Your task to perform on an android device: turn off translation in the chrome app Image 0: 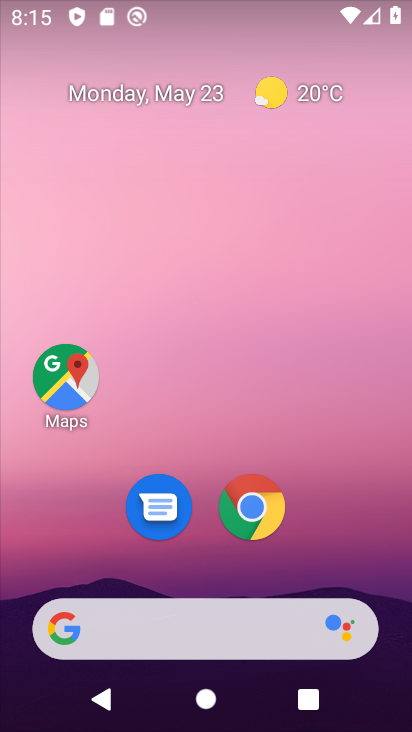
Step 0: click (262, 515)
Your task to perform on an android device: turn off translation in the chrome app Image 1: 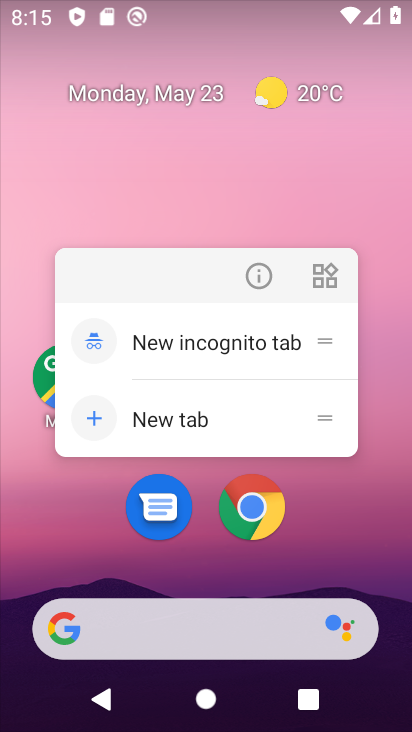
Step 1: click (265, 504)
Your task to perform on an android device: turn off translation in the chrome app Image 2: 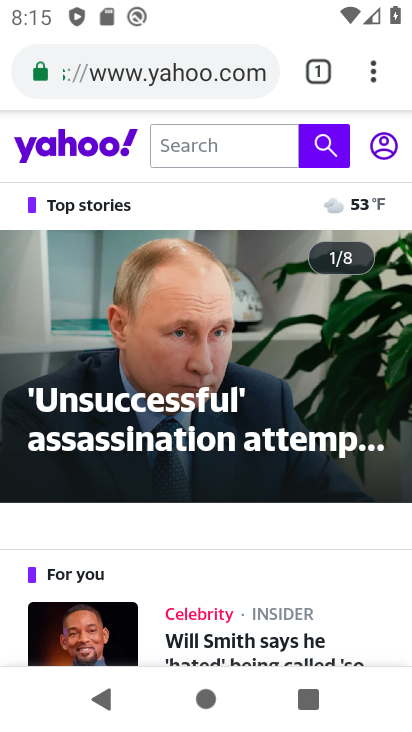
Step 2: click (375, 75)
Your task to perform on an android device: turn off translation in the chrome app Image 3: 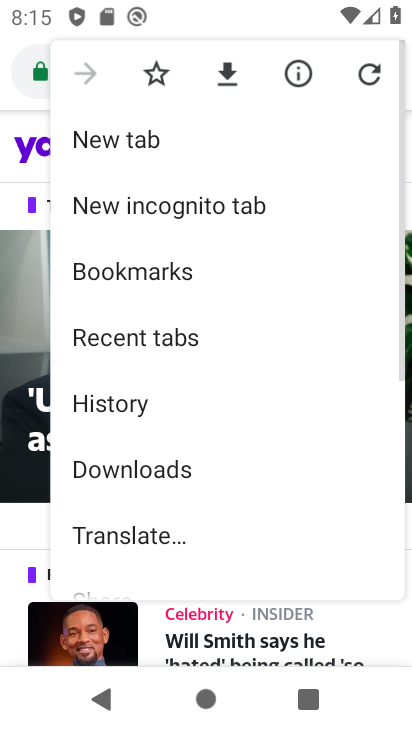
Step 3: drag from (235, 489) to (235, 134)
Your task to perform on an android device: turn off translation in the chrome app Image 4: 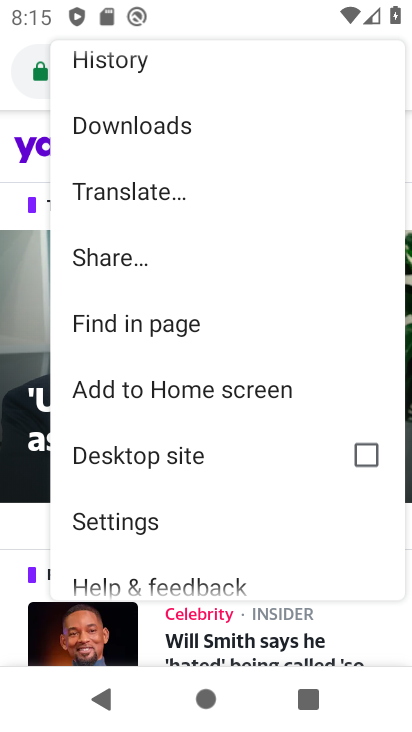
Step 4: drag from (207, 491) to (187, 233)
Your task to perform on an android device: turn off translation in the chrome app Image 5: 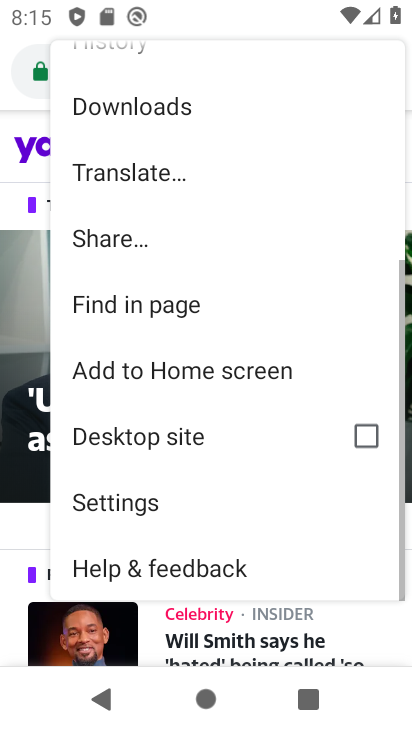
Step 5: click (123, 514)
Your task to perform on an android device: turn off translation in the chrome app Image 6: 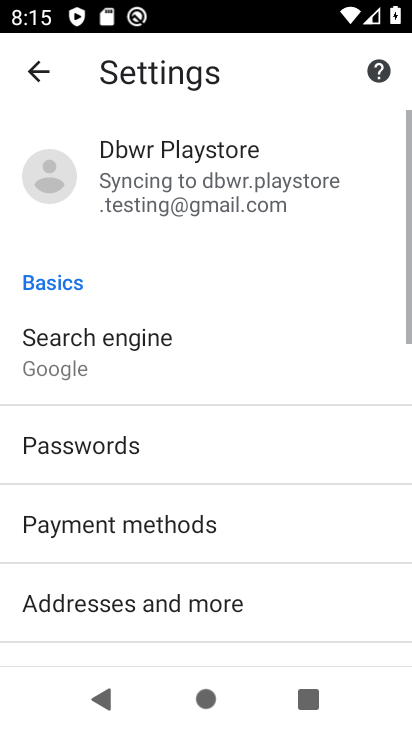
Step 6: drag from (242, 573) to (230, 134)
Your task to perform on an android device: turn off translation in the chrome app Image 7: 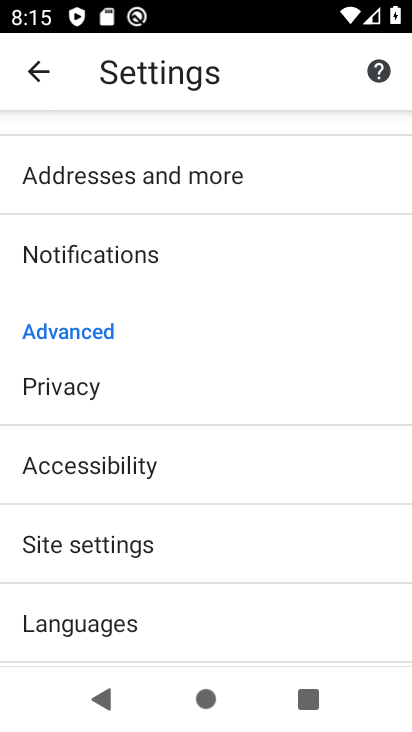
Step 7: click (122, 630)
Your task to perform on an android device: turn off translation in the chrome app Image 8: 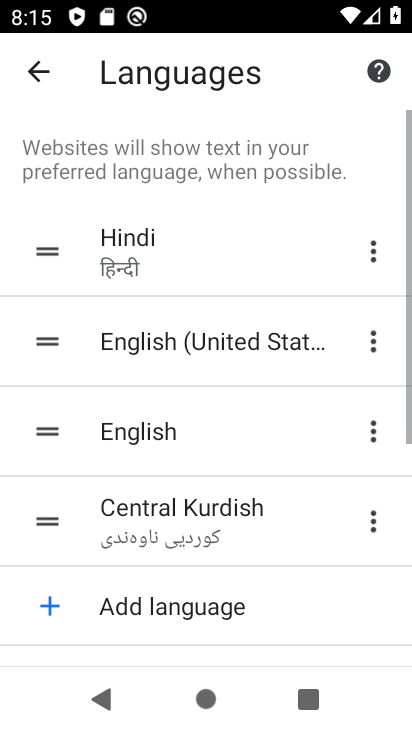
Step 8: drag from (219, 582) to (231, 346)
Your task to perform on an android device: turn off translation in the chrome app Image 9: 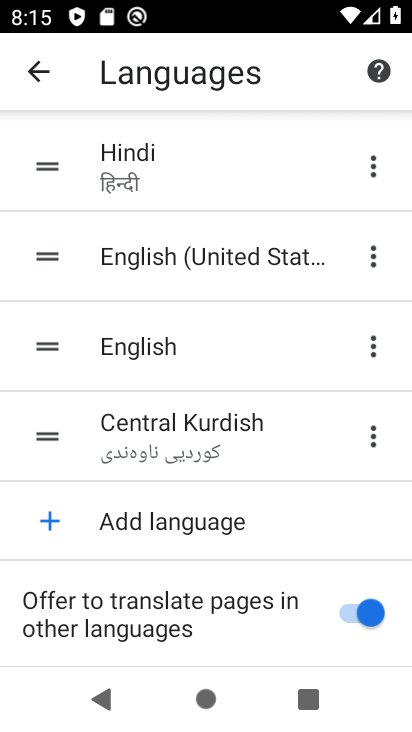
Step 9: click (377, 622)
Your task to perform on an android device: turn off translation in the chrome app Image 10: 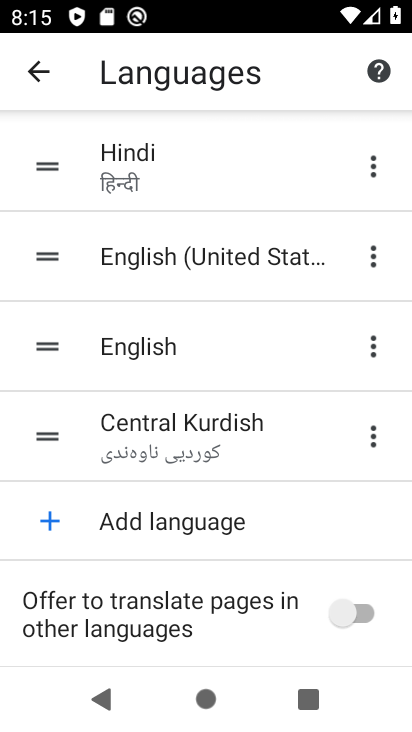
Step 10: task complete